Your task to perform on an android device: Open maps Image 0: 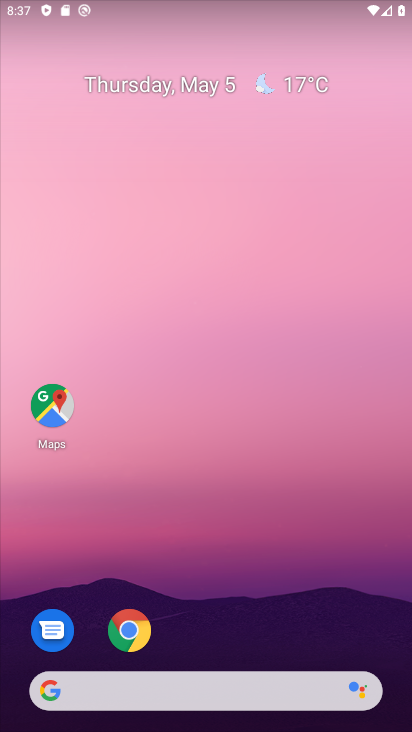
Step 0: drag from (209, 652) to (203, 53)
Your task to perform on an android device: Open maps Image 1: 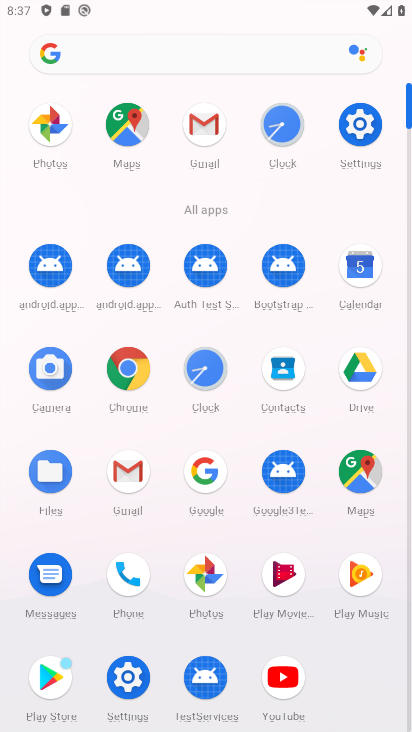
Step 1: click (360, 469)
Your task to perform on an android device: Open maps Image 2: 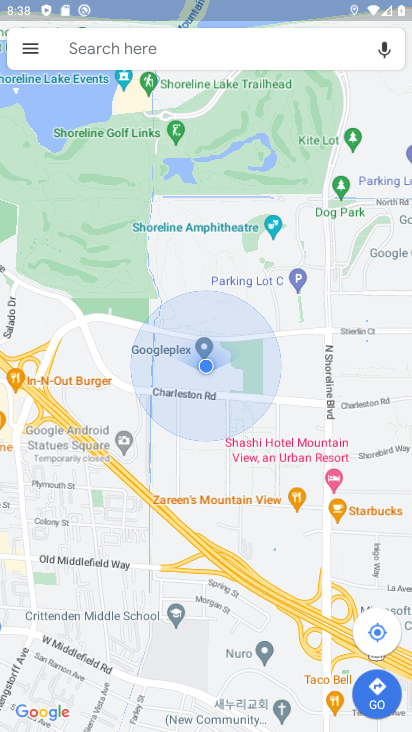
Step 2: task complete